Your task to perform on an android device: install app "Gmail" Image 0: 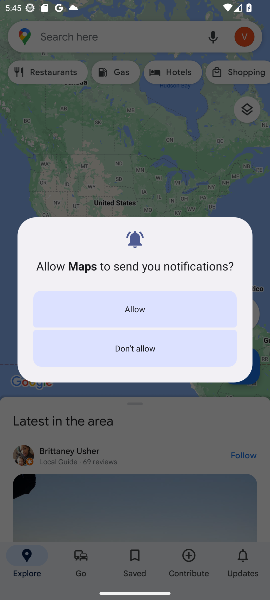
Step 0: press home button
Your task to perform on an android device: install app "Gmail" Image 1: 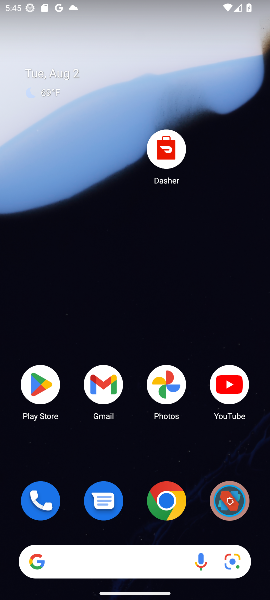
Step 1: click (50, 389)
Your task to perform on an android device: install app "Gmail" Image 2: 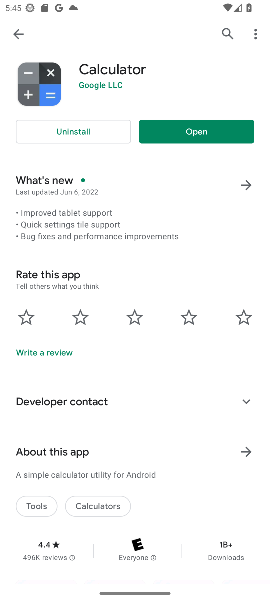
Step 2: click (227, 32)
Your task to perform on an android device: install app "Gmail" Image 3: 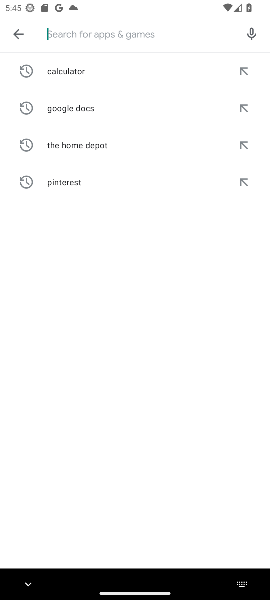
Step 3: type "Gmail"
Your task to perform on an android device: install app "Gmail" Image 4: 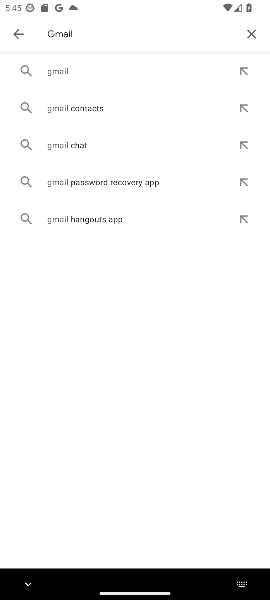
Step 4: click (54, 66)
Your task to perform on an android device: install app "Gmail" Image 5: 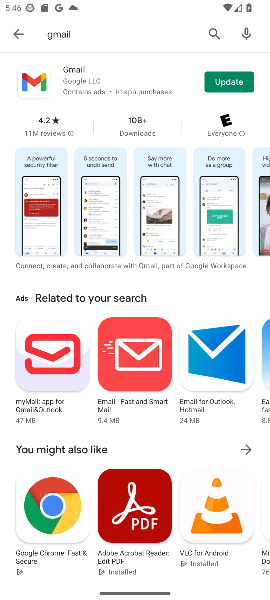
Step 5: task complete